Your task to perform on an android device: allow cookies in the chrome app Image 0: 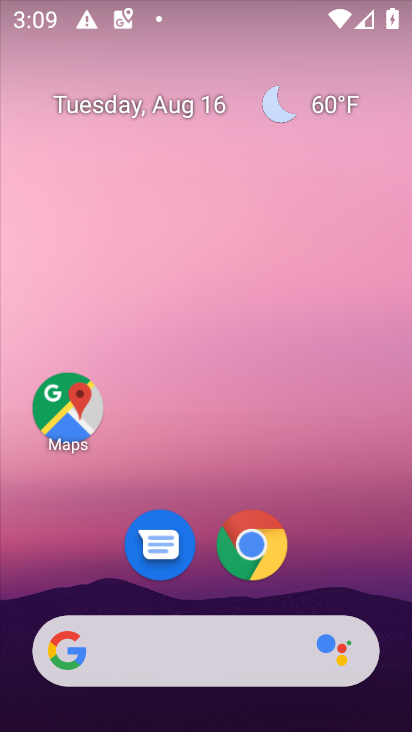
Step 0: click (224, 544)
Your task to perform on an android device: allow cookies in the chrome app Image 1: 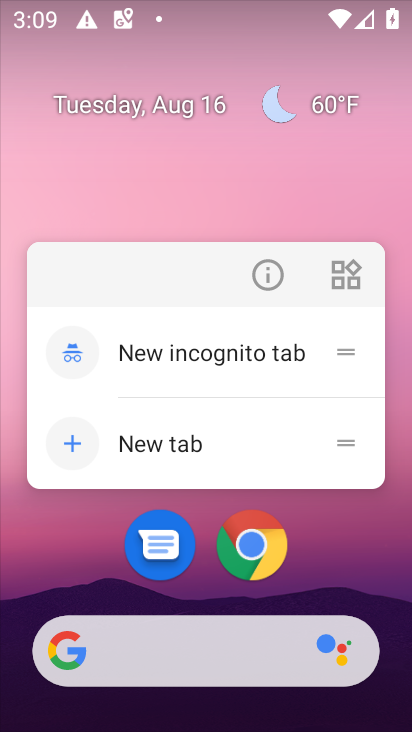
Step 1: click (273, 557)
Your task to perform on an android device: allow cookies in the chrome app Image 2: 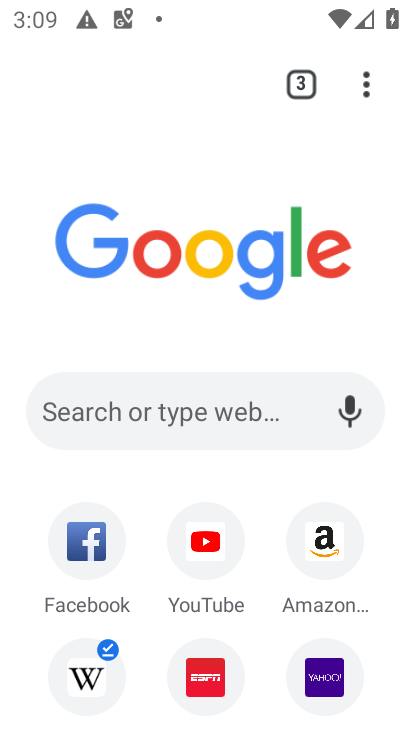
Step 2: click (357, 90)
Your task to perform on an android device: allow cookies in the chrome app Image 3: 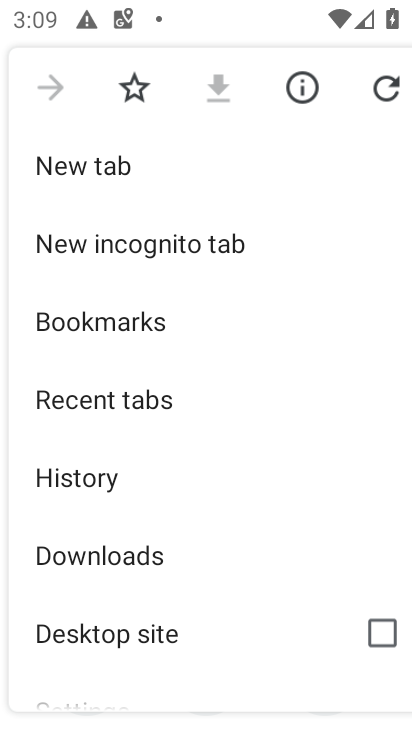
Step 3: drag from (144, 499) to (144, 295)
Your task to perform on an android device: allow cookies in the chrome app Image 4: 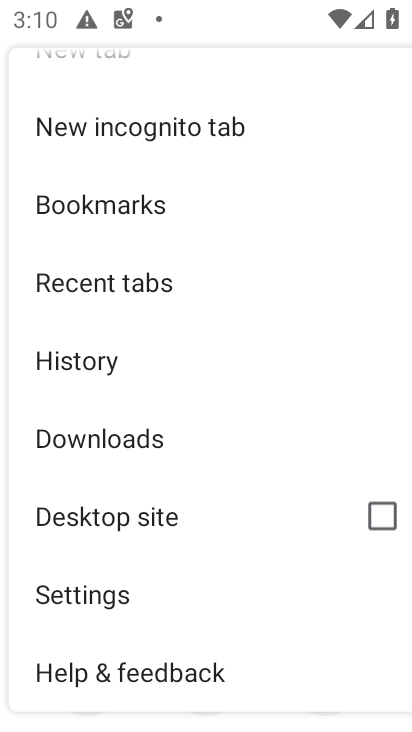
Step 4: click (72, 595)
Your task to perform on an android device: allow cookies in the chrome app Image 5: 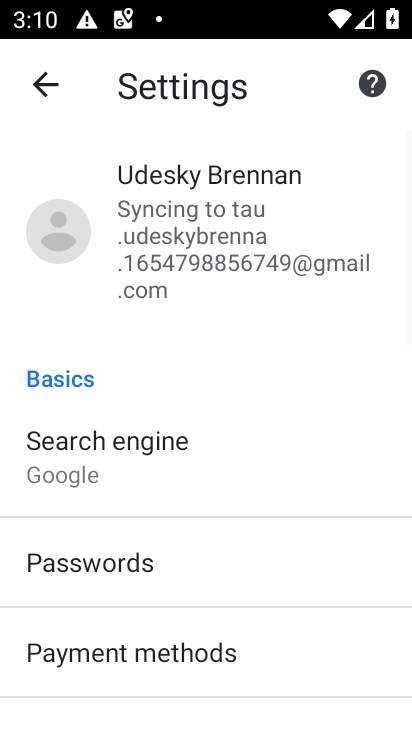
Step 5: drag from (95, 661) to (123, 351)
Your task to perform on an android device: allow cookies in the chrome app Image 6: 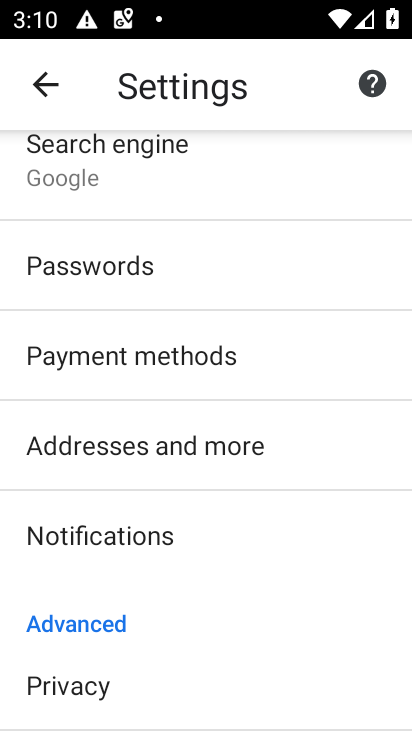
Step 6: drag from (123, 650) to (123, 382)
Your task to perform on an android device: allow cookies in the chrome app Image 7: 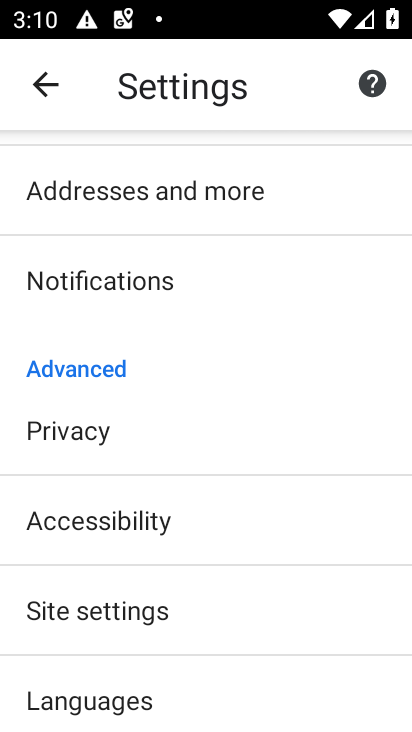
Step 7: click (44, 595)
Your task to perform on an android device: allow cookies in the chrome app Image 8: 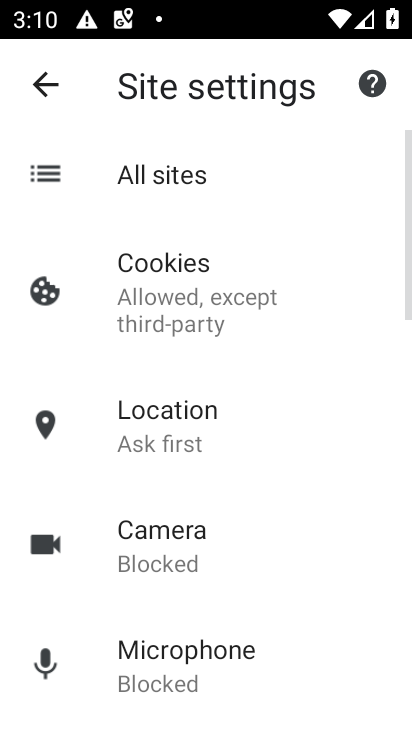
Step 8: click (170, 318)
Your task to perform on an android device: allow cookies in the chrome app Image 9: 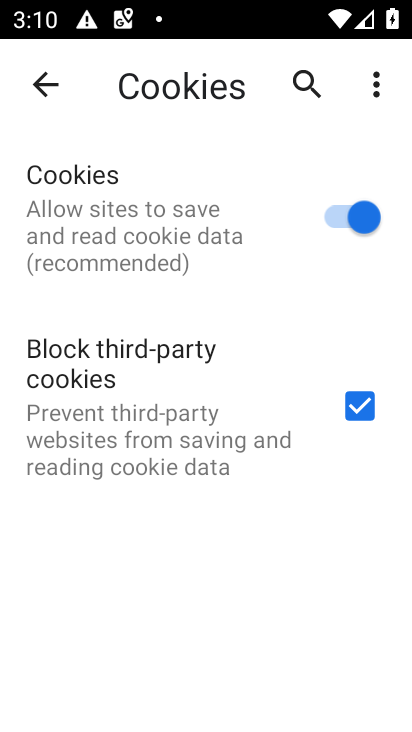
Step 9: task complete